Your task to perform on an android device: move a message to another label in the gmail app Image 0: 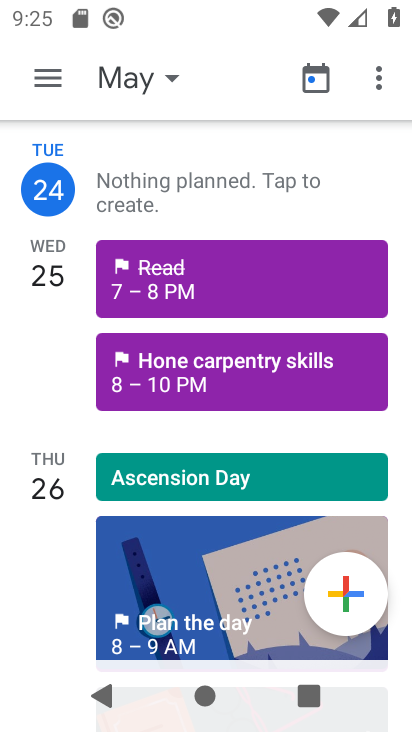
Step 0: press home button
Your task to perform on an android device: move a message to another label in the gmail app Image 1: 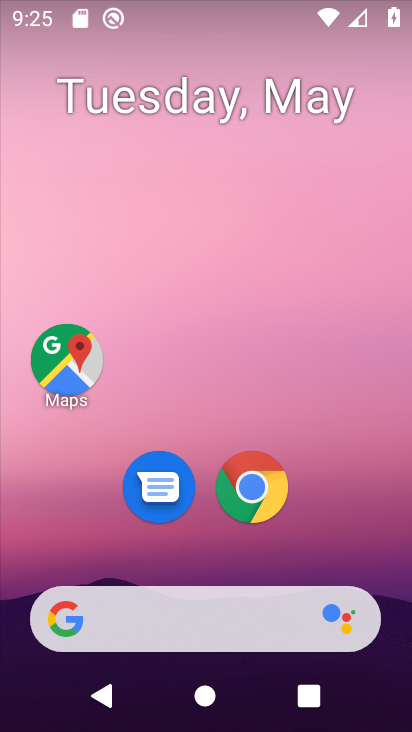
Step 1: drag from (138, 626) to (300, 166)
Your task to perform on an android device: move a message to another label in the gmail app Image 2: 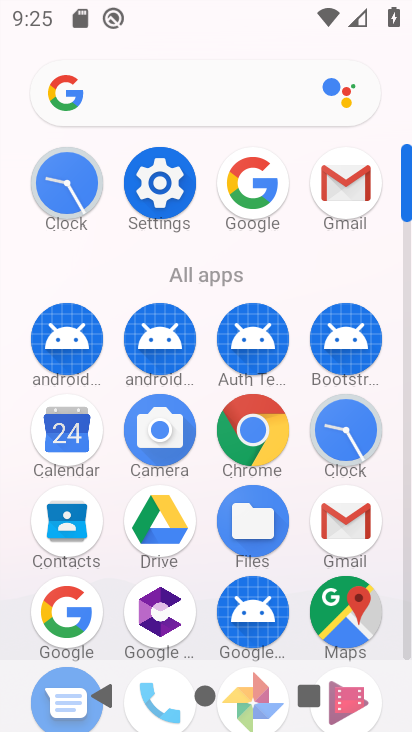
Step 2: click (345, 204)
Your task to perform on an android device: move a message to another label in the gmail app Image 3: 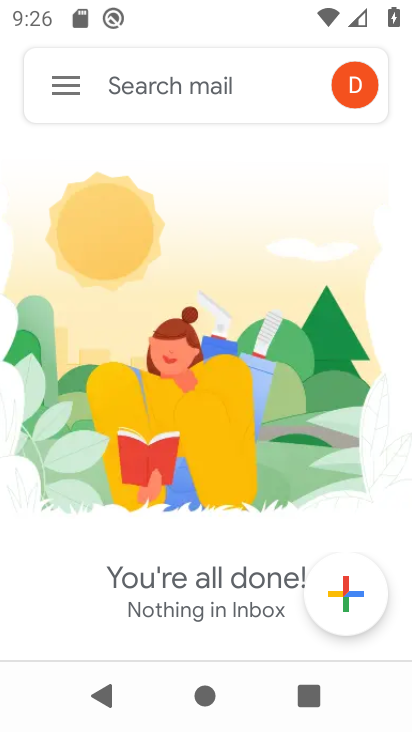
Step 3: task complete